Your task to perform on an android device: Is it going to rain this weekend? Image 0: 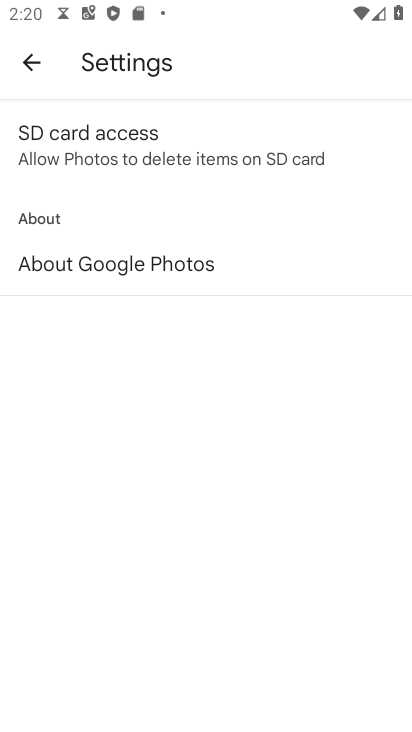
Step 0: press back button
Your task to perform on an android device: Is it going to rain this weekend? Image 1: 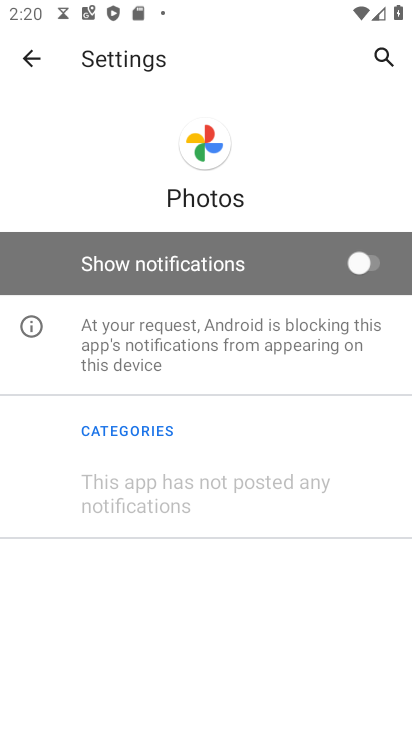
Step 1: press back button
Your task to perform on an android device: Is it going to rain this weekend? Image 2: 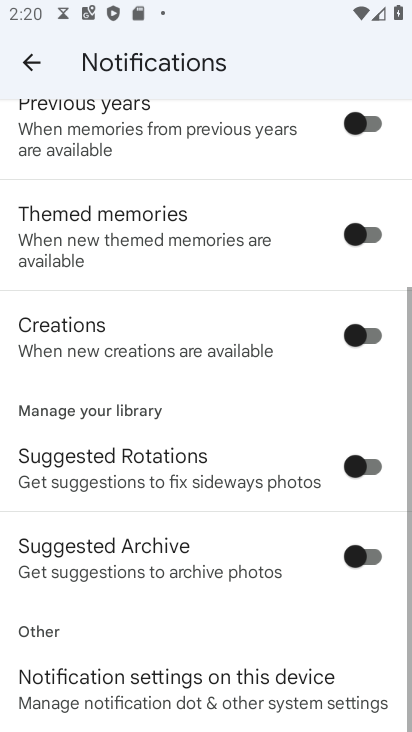
Step 2: press home button
Your task to perform on an android device: Is it going to rain this weekend? Image 3: 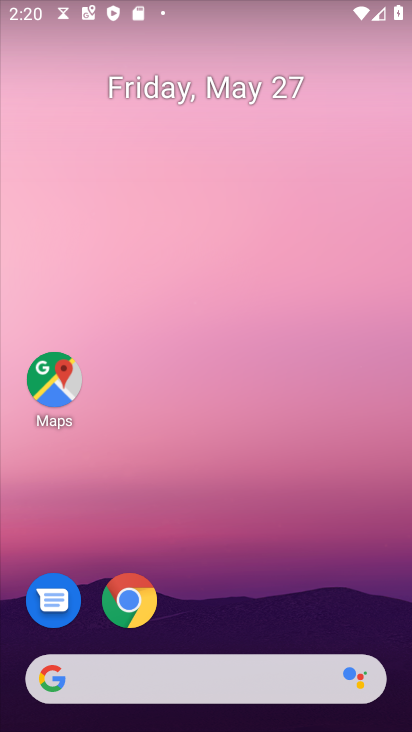
Step 3: drag from (205, 611) to (178, 26)
Your task to perform on an android device: Is it going to rain this weekend? Image 4: 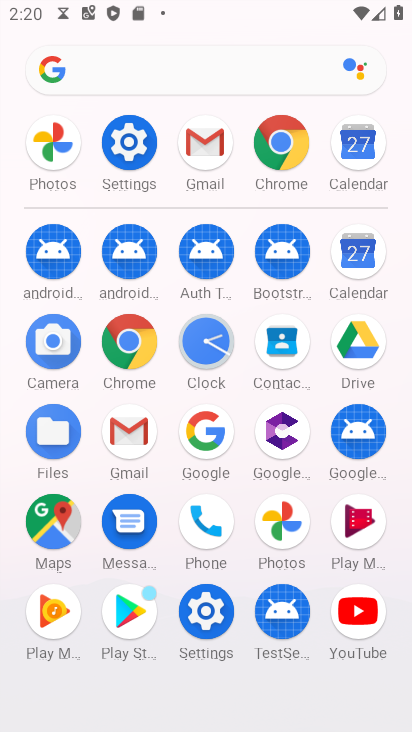
Step 4: drag from (2, 578) to (25, 206)
Your task to perform on an android device: Is it going to rain this weekend? Image 5: 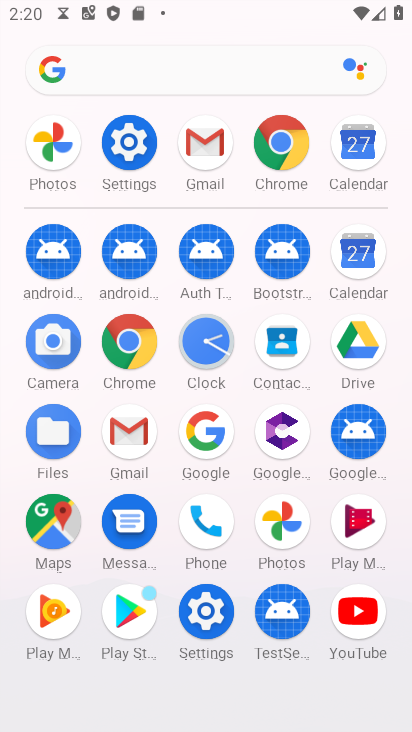
Step 5: click (122, 329)
Your task to perform on an android device: Is it going to rain this weekend? Image 6: 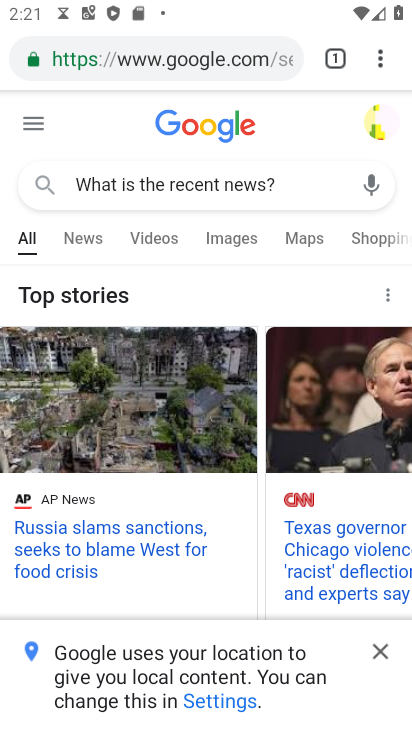
Step 6: click (160, 62)
Your task to perform on an android device: Is it going to rain this weekend? Image 7: 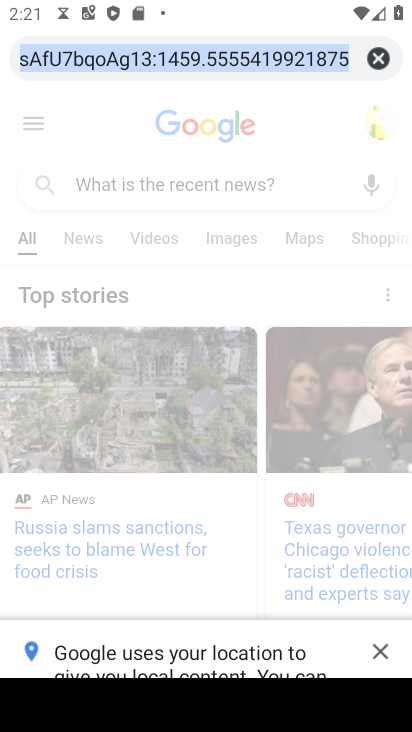
Step 7: click (375, 54)
Your task to perform on an android device: Is it going to rain this weekend? Image 8: 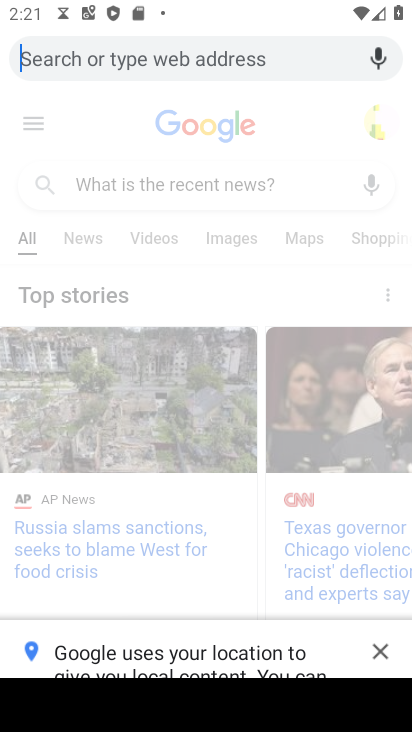
Step 8: type "Is it going to rain this weekend?"
Your task to perform on an android device: Is it going to rain this weekend? Image 9: 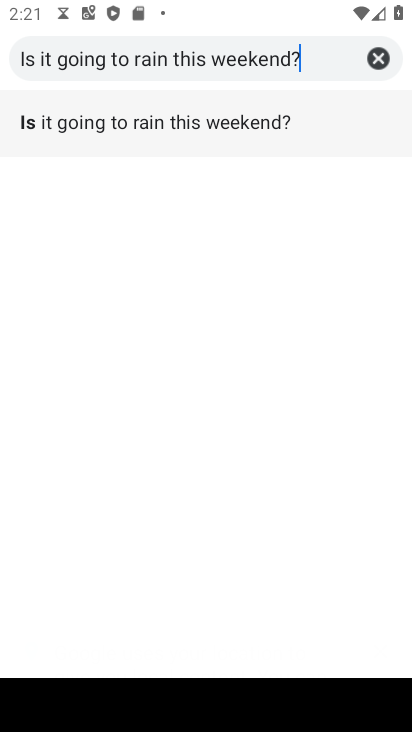
Step 9: type ""
Your task to perform on an android device: Is it going to rain this weekend? Image 10: 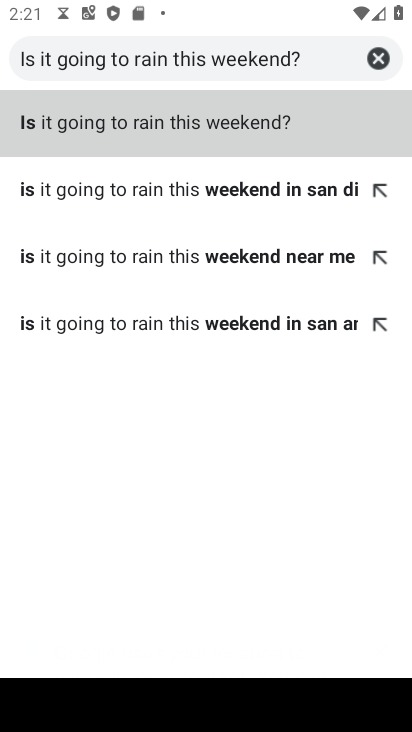
Step 10: click (194, 126)
Your task to perform on an android device: Is it going to rain this weekend? Image 11: 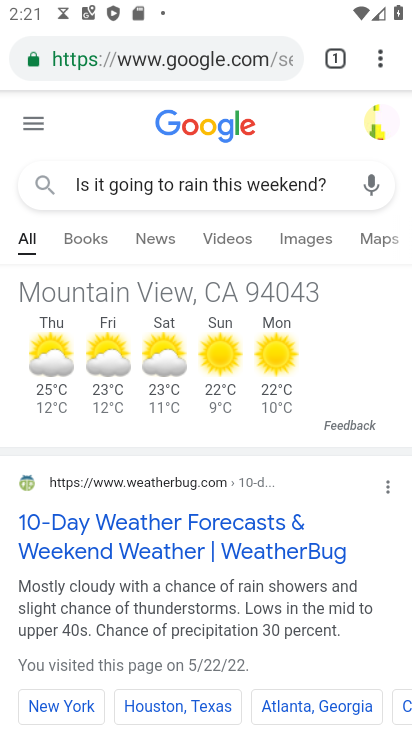
Step 11: task complete